Your task to perform on an android device: turn notification dots on Image 0: 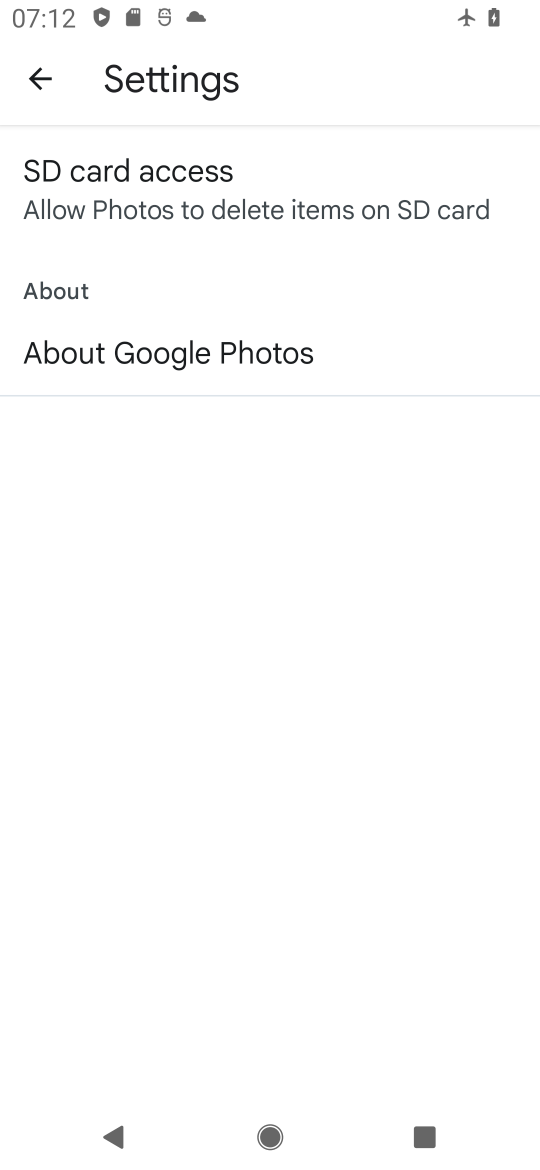
Step 0: press home button
Your task to perform on an android device: turn notification dots on Image 1: 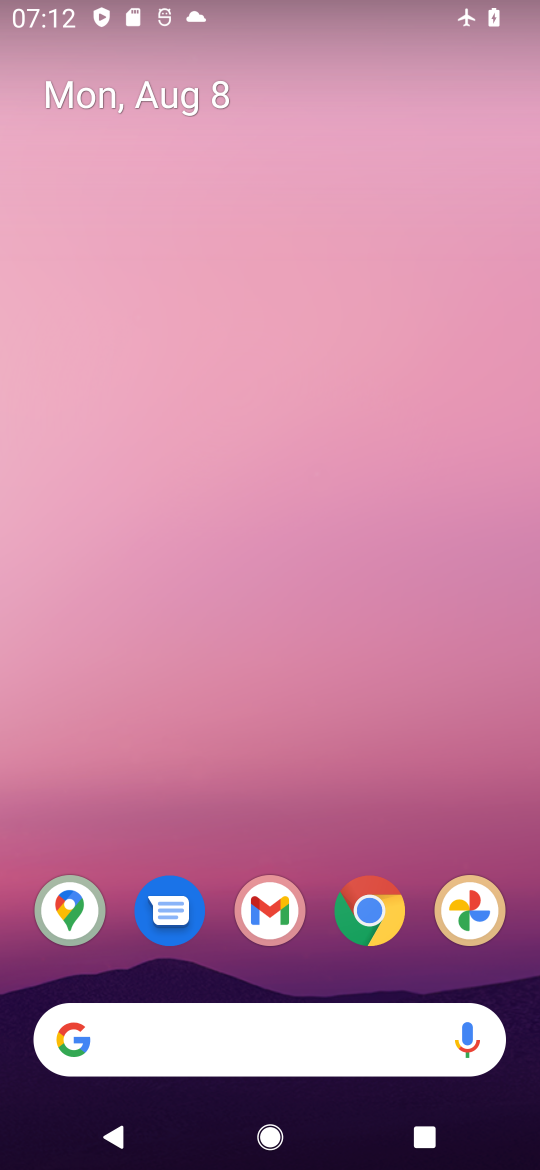
Step 1: drag from (227, 1040) to (373, 376)
Your task to perform on an android device: turn notification dots on Image 2: 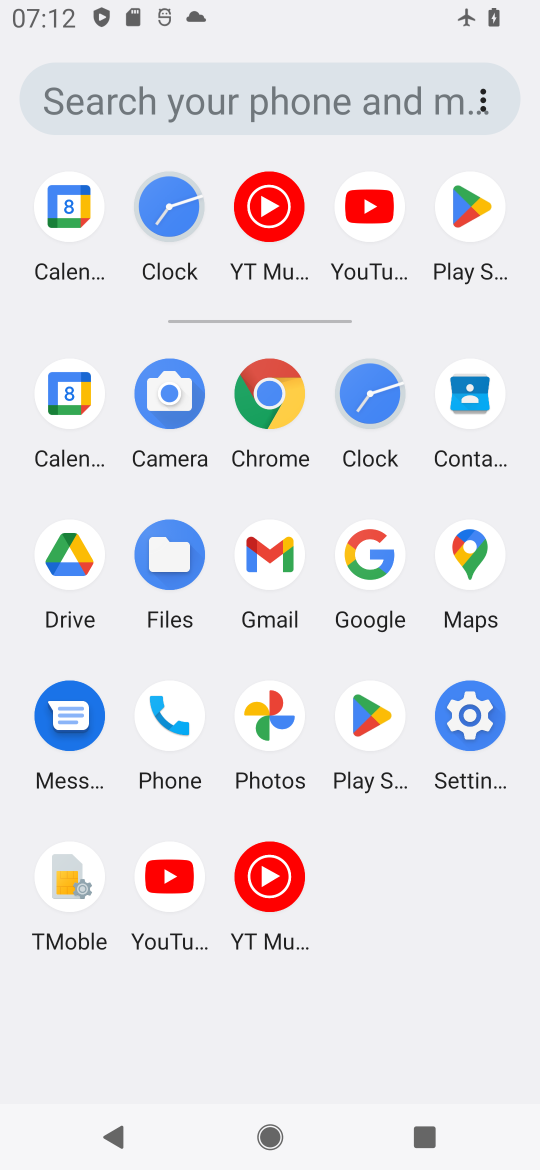
Step 2: click (466, 717)
Your task to perform on an android device: turn notification dots on Image 3: 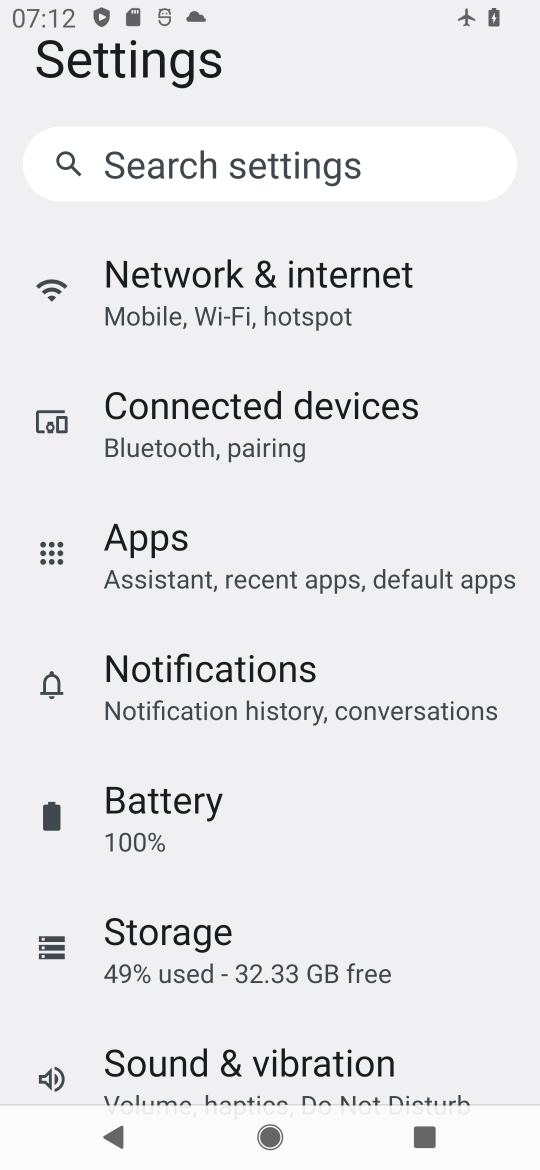
Step 3: drag from (275, 752) to (364, 609)
Your task to perform on an android device: turn notification dots on Image 4: 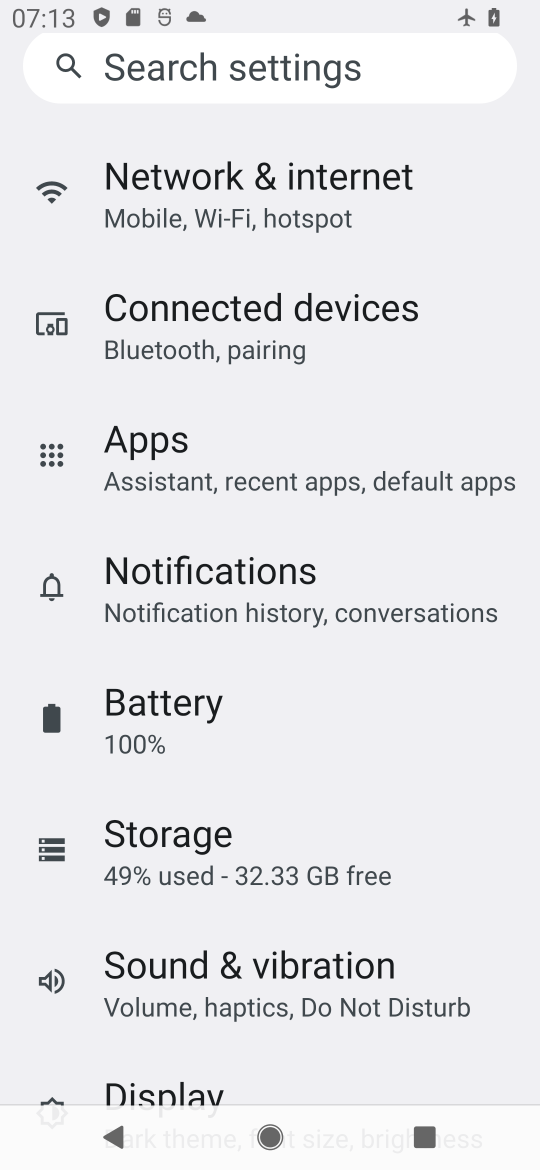
Step 4: click (287, 601)
Your task to perform on an android device: turn notification dots on Image 5: 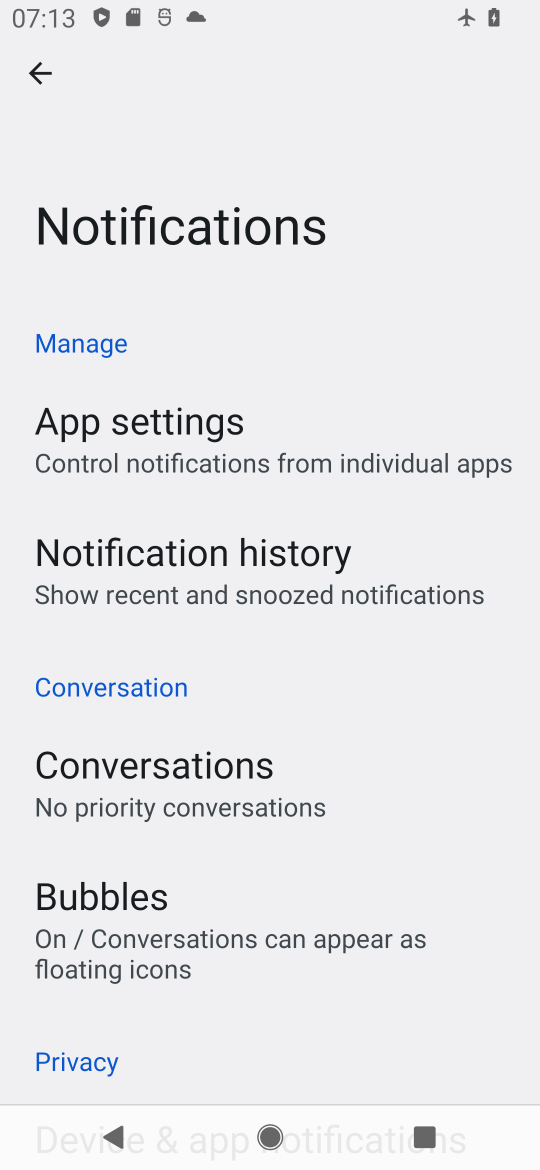
Step 5: drag from (234, 718) to (378, 517)
Your task to perform on an android device: turn notification dots on Image 6: 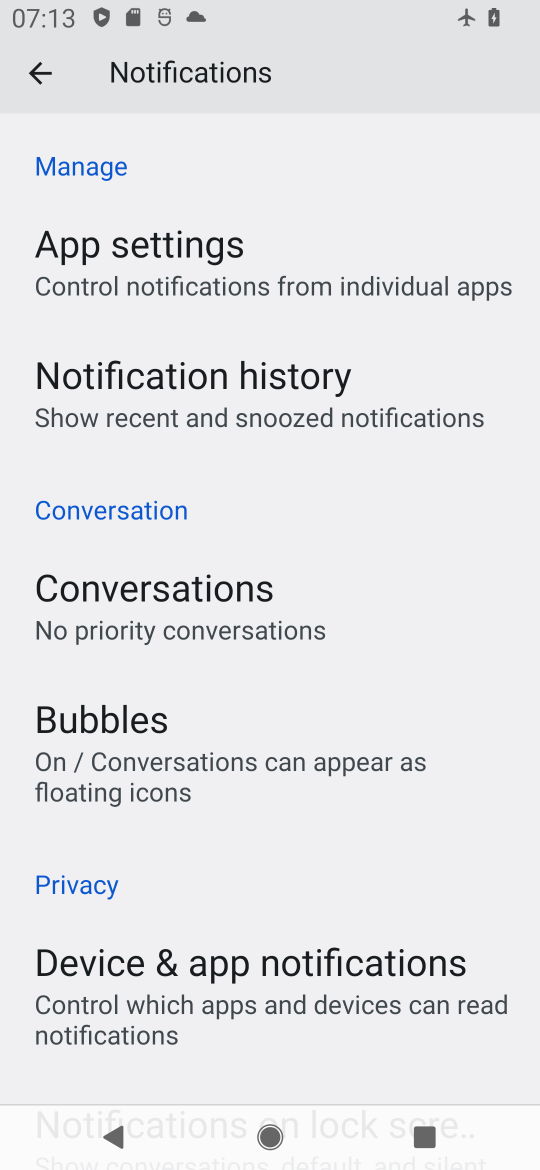
Step 6: drag from (221, 885) to (374, 656)
Your task to perform on an android device: turn notification dots on Image 7: 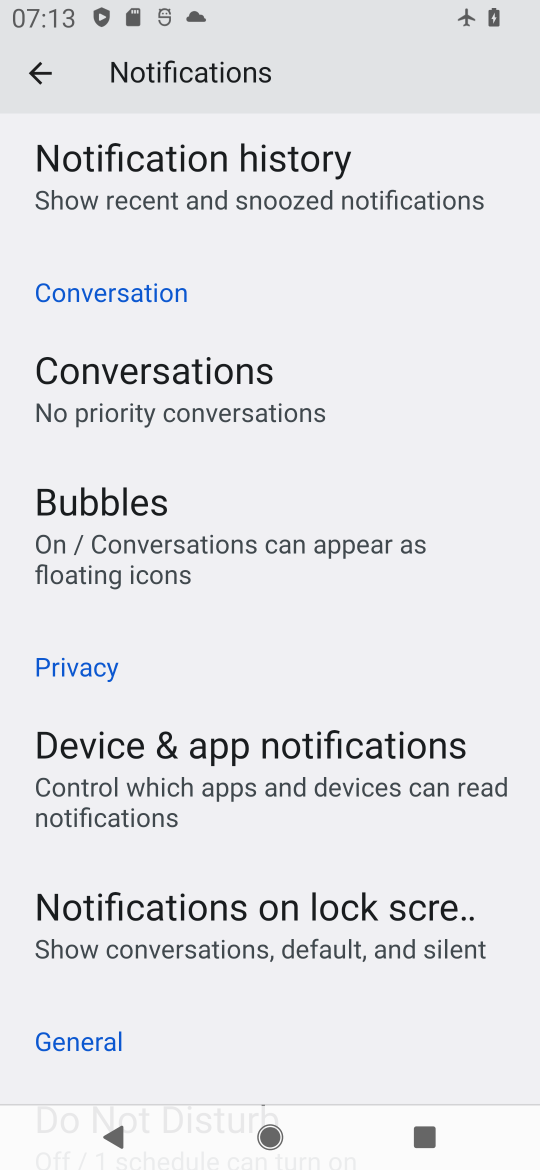
Step 7: drag from (244, 882) to (405, 584)
Your task to perform on an android device: turn notification dots on Image 8: 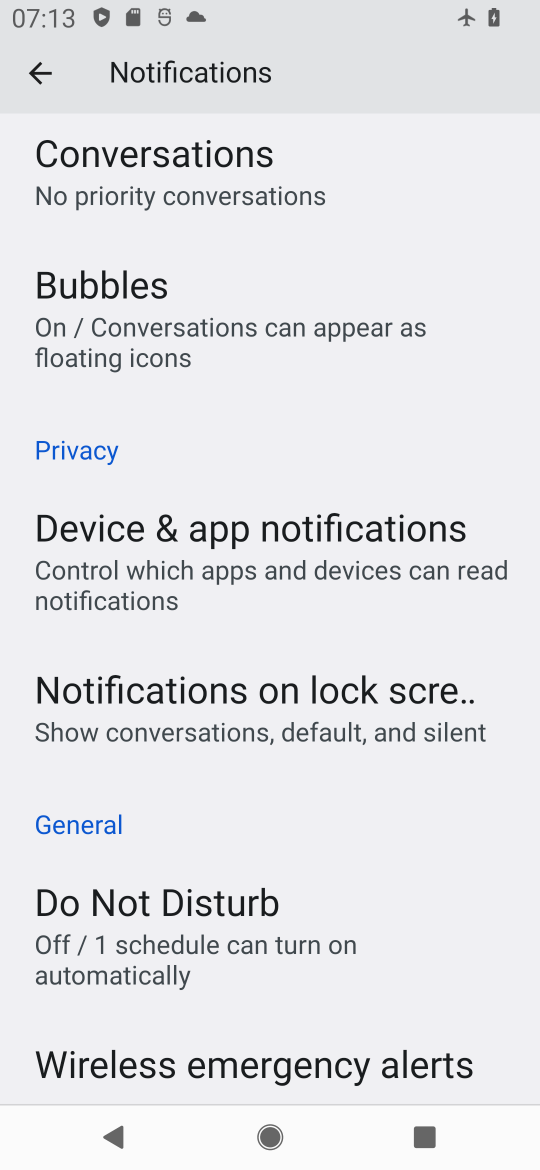
Step 8: drag from (241, 874) to (384, 624)
Your task to perform on an android device: turn notification dots on Image 9: 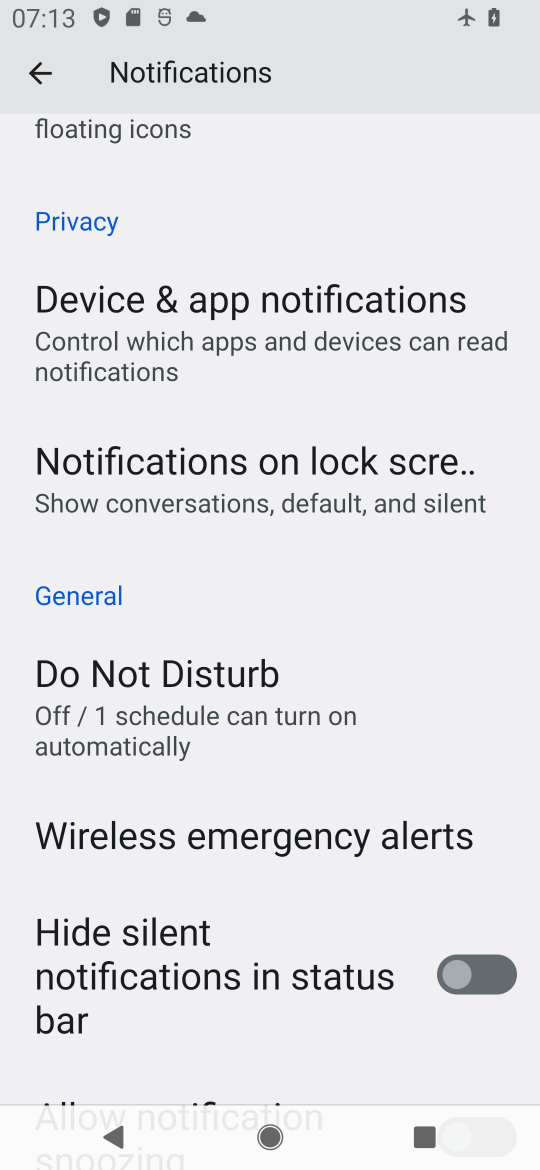
Step 9: drag from (215, 899) to (349, 582)
Your task to perform on an android device: turn notification dots on Image 10: 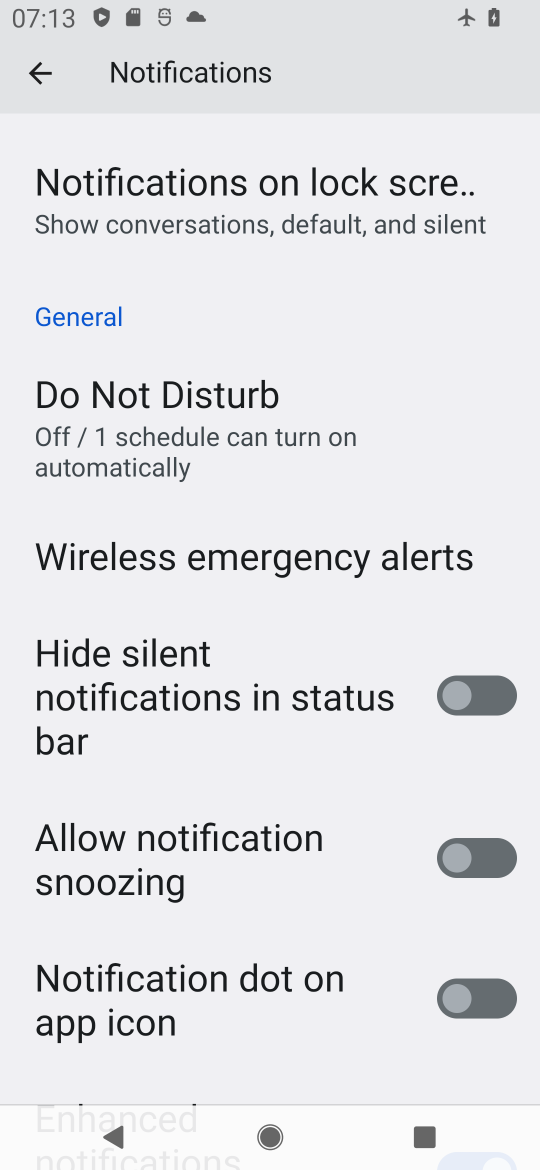
Step 10: click (464, 1014)
Your task to perform on an android device: turn notification dots on Image 11: 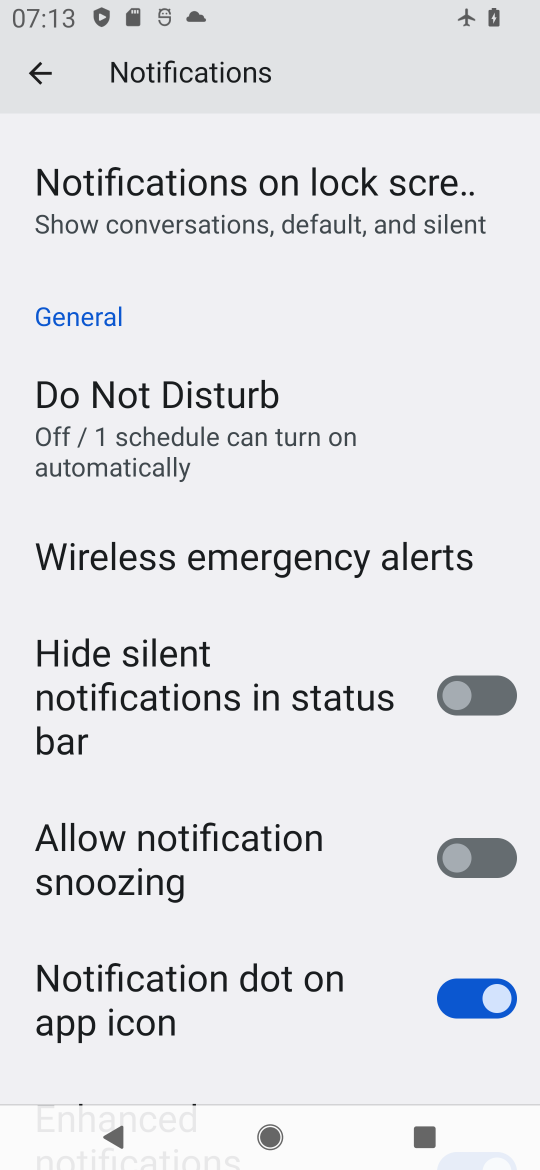
Step 11: task complete